Your task to perform on an android device: Play the last video I watched on Youtube Image 0: 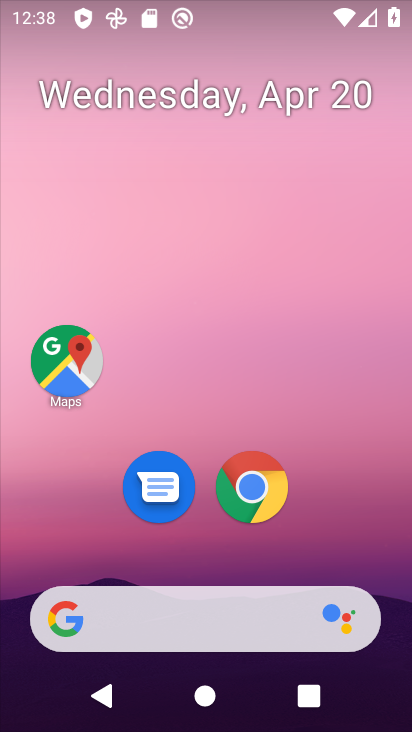
Step 0: drag from (345, 527) to (343, 85)
Your task to perform on an android device: Play the last video I watched on Youtube Image 1: 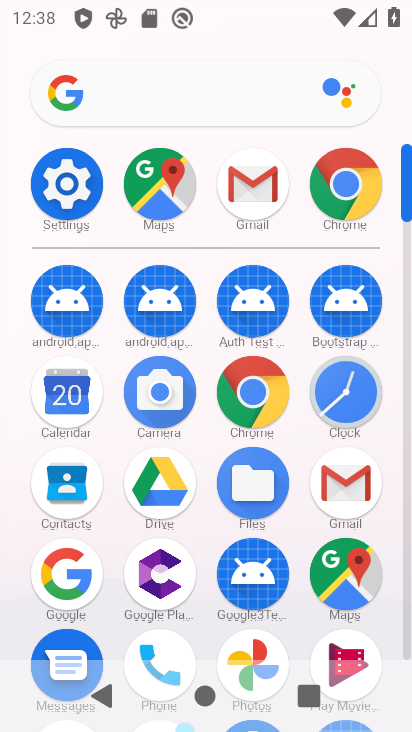
Step 1: click (409, 653)
Your task to perform on an android device: Play the last video I watched on Youtube Image 2: 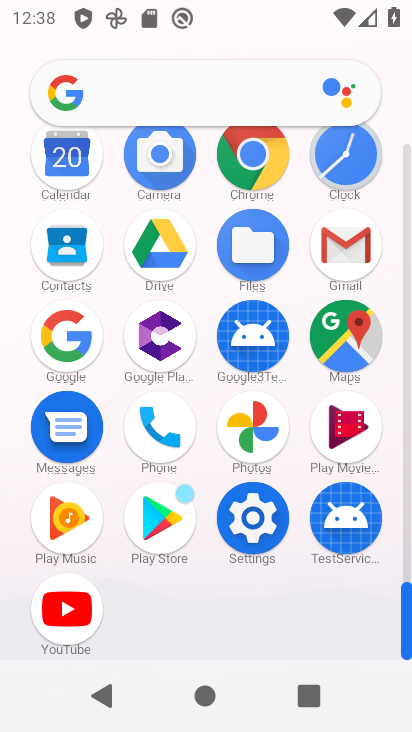
Step 2: click (51, 602)
Your task to perform on an android device: Play the last video I watched on Youtube Image 3: 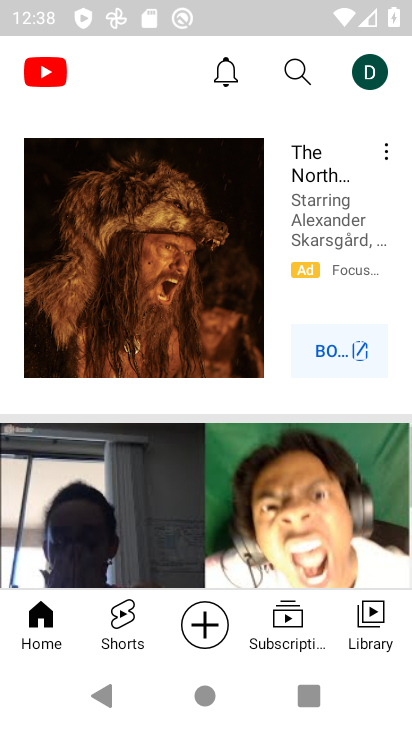
Step 3: click (364, 621)
Your task to perform on an android device: Play the last video I watched on Youtube Image 4: 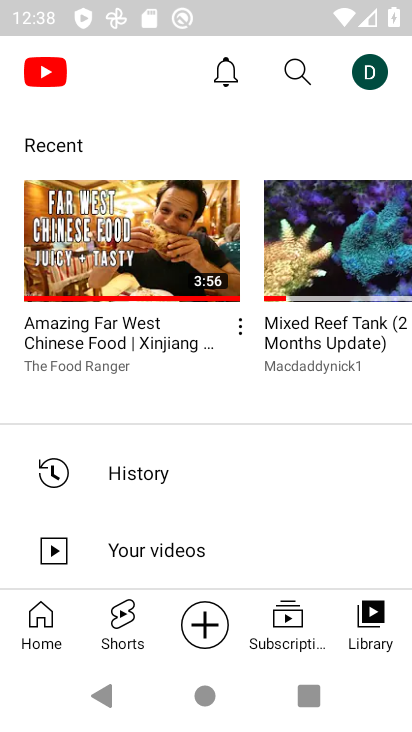
Step 4: click (118, 201)
Your task to perform on an android device: Play the last video I watched on Youtube Image 5: 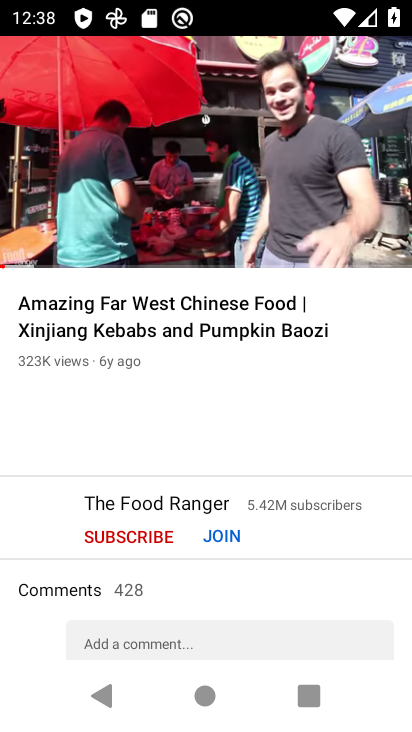
Step 5: click (217, 149)
Your task to perform on an android device: Play the last video I watched on Youtube Image 6: 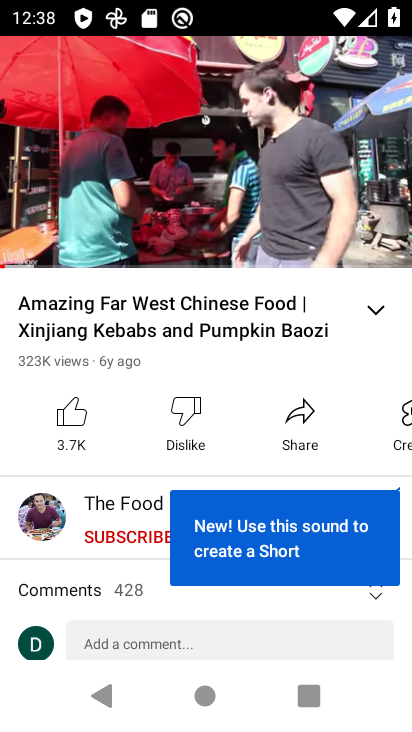
Step 6: click (217, 149)
Your task to perform on an android device: Play the last video I watched on Youtube Image 7: 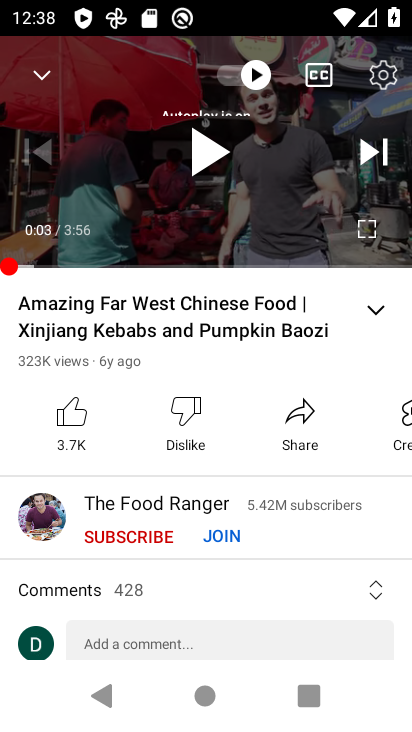
Step 7: task complete